Your task to perform on an android device: turn off translation in the chrome app Image 0: 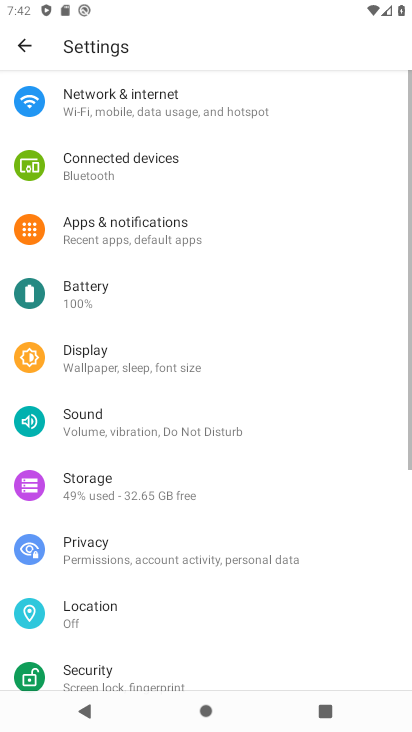
Step 0: press home button
Your task to perform on an android device: turn off translation in the chrome app Image 1: 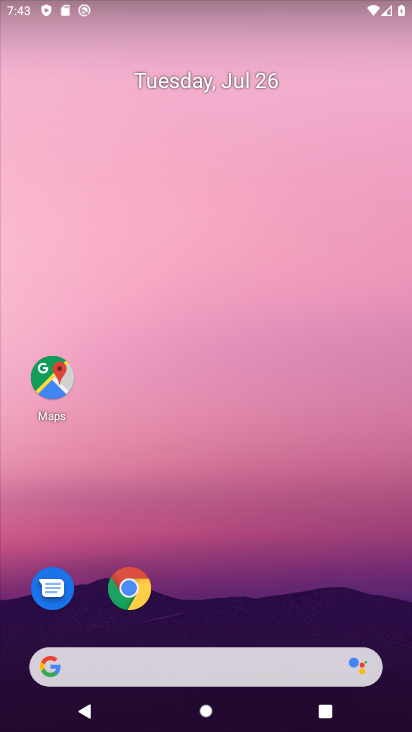
Step 1: drag from (292, 523) to (300, 16)
Your task to perform on an android device: turn off translation in the chrome app Image 2: 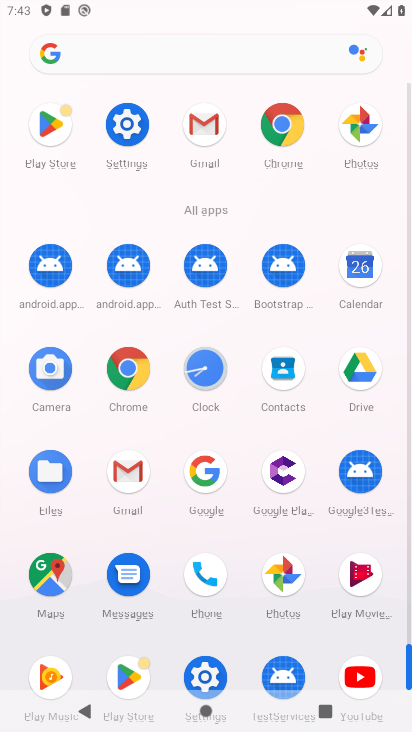
Step 2: click (283, 115)
Your task to perform on an android device: turn off translation in the chrome app Image 3: 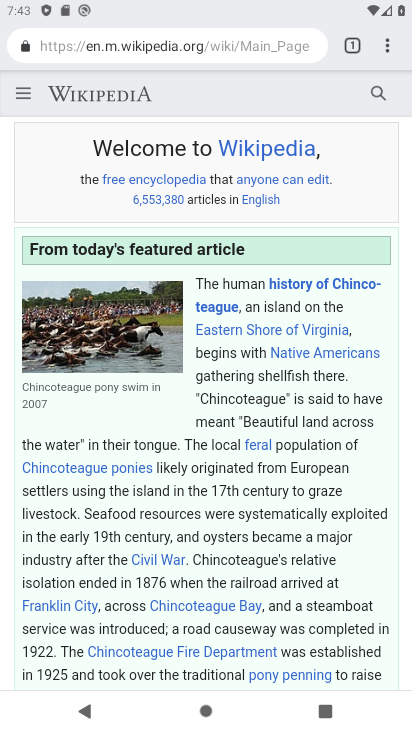
Step 3: drag from (383, 41) to (235, 553)
Your task to perform on an android device: turn off translation in the chrome app Image 4: 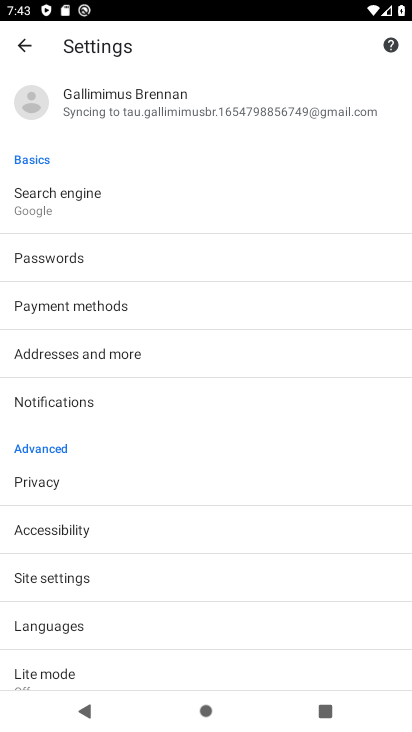
Step 4: drag from (179, 574) to (240, 162)
Your task to perform on an android device: turn off translation in the chrome app Image 5: 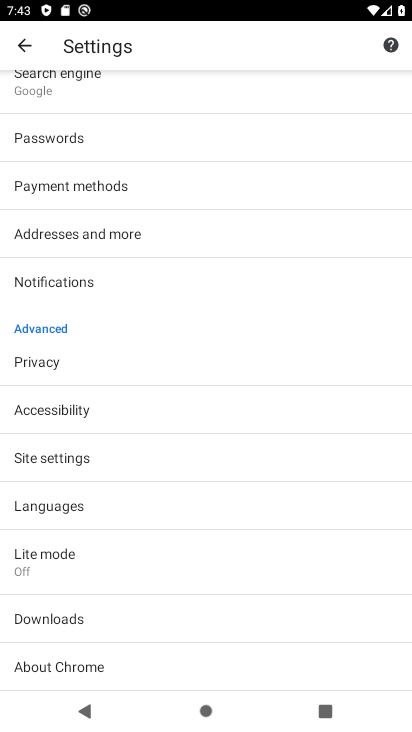
Step 5: click (70, 515)
Your task to perform on an android device: turn off translation in the chrome app Image 6: 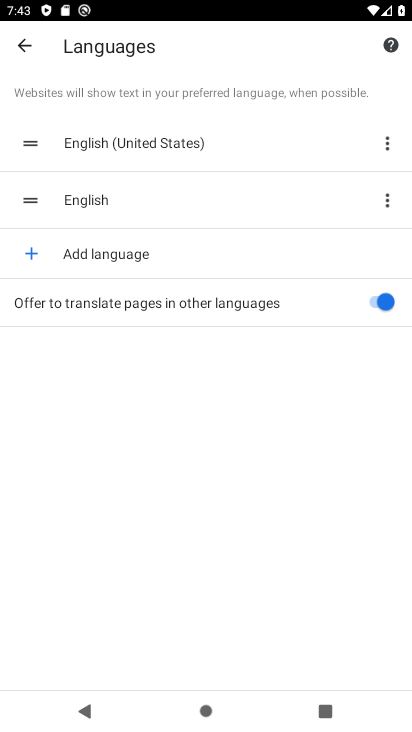
Step 6: click (378, 304)
Your task to perform on an android device: turn off translation in the chrome app Image 7: 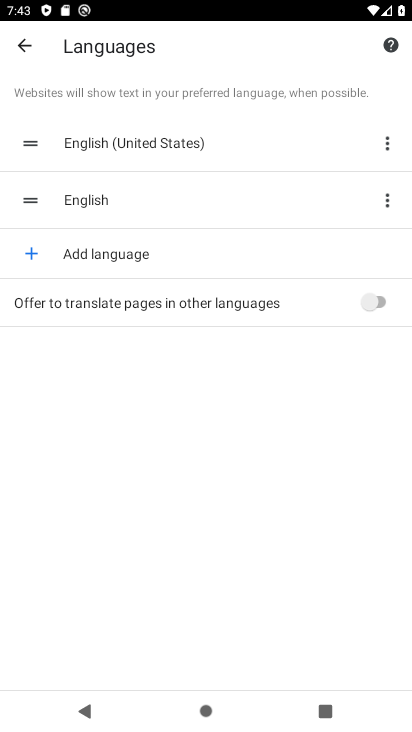
Step 7: task complete